Your task to perform on an android device: Open calendar and show me the fourth week of next month Image 0: 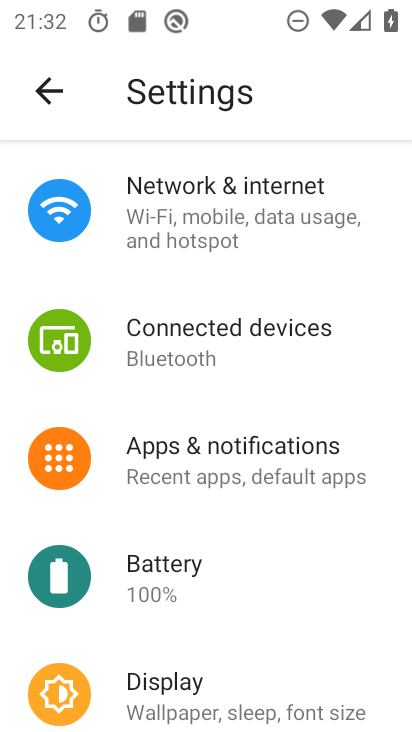
Step 0: press home button
Your task to perform on an android device: Open calendar and show me the fourth week of next month Image 1: 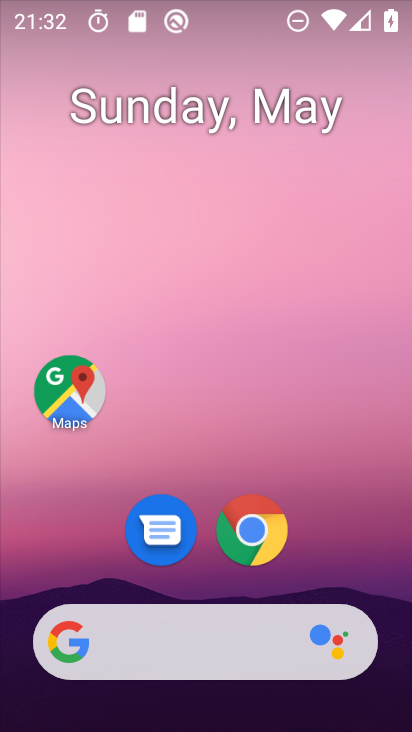
Step 1: drag from (217, 645) to (214, 123)
Your task to perform on an android device: Open calendar and show me the fourth week of next month Image 2: 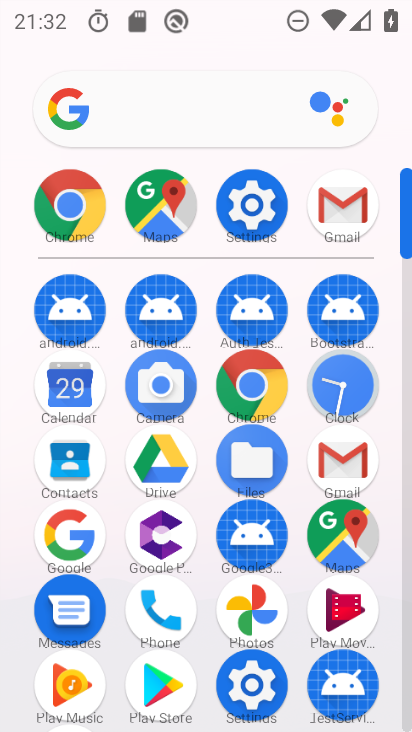
Step 2: click (69, 392)
Your task to perform on an android device: Open calendar and show me the fourth week of next month Image 3: 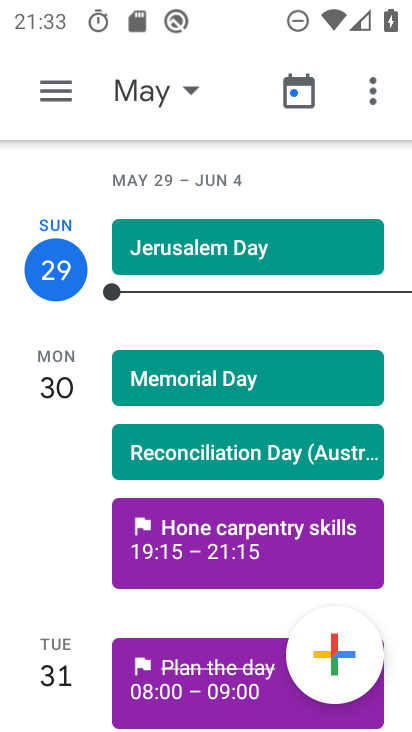
Step 3: click (45, 91)
Your task to perform on an android device: Open calendar and show me the fourth week of next month Image 4: 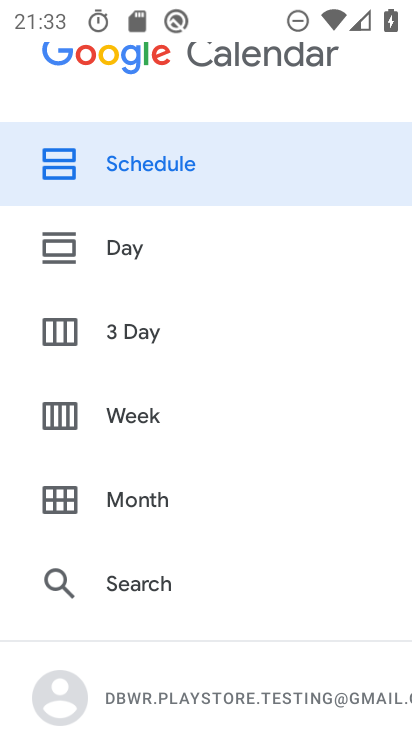
Step 4: click (138, 504)
Your task to perform on an android device: Open calendar and show me the fourth week of next month Image 5: 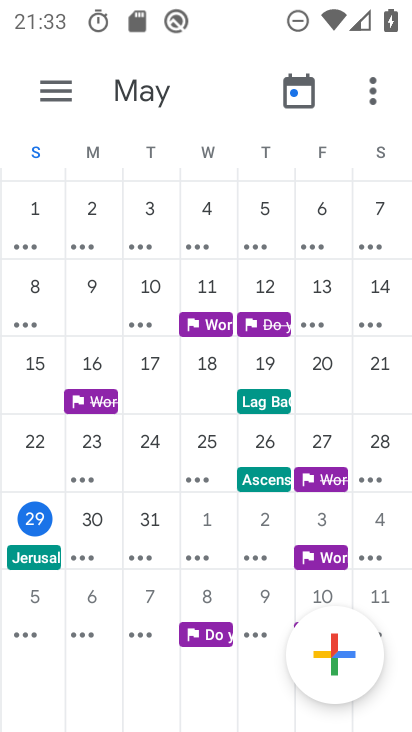
Step 5: drag from (352, 370) to (0, 445)
Your task to perform on an android device: Open calendar and show me the fourth week of next month Image 6: 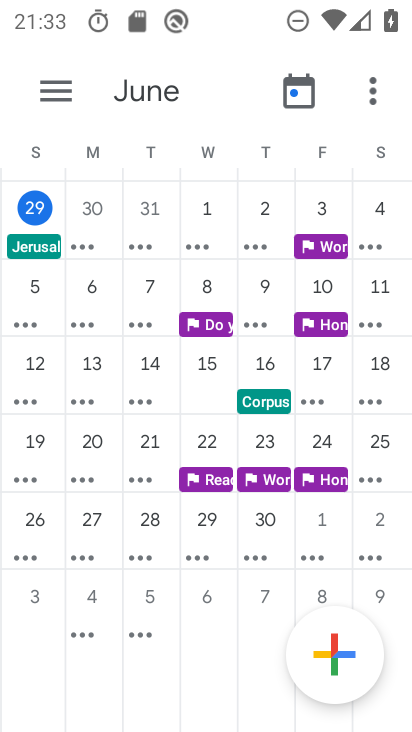
Step 6: click (87, 517)
Your task to perform on an android device: Open calendar and show me the fourth week of next month Image 7: 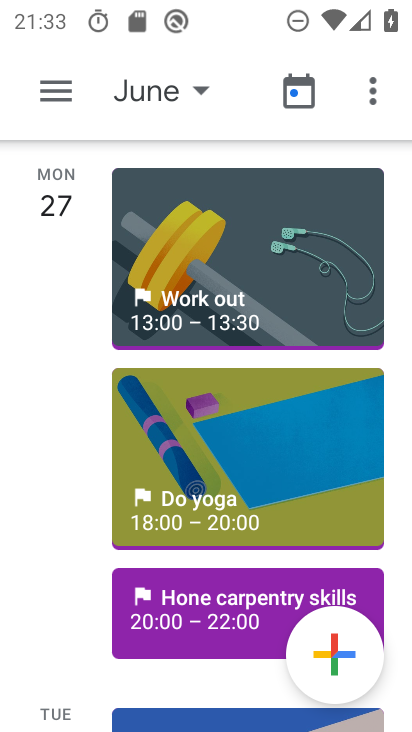
Step 7: task complete